Your task to perform on an android device: move an email to a new category in the gmail app Image 0: 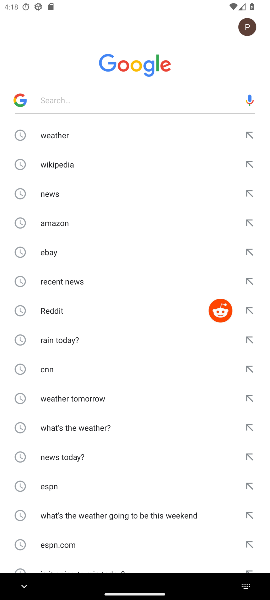
Step 0: press home button
Your task to perform on an android device: move an email to a new category in the gmail app Image 1: 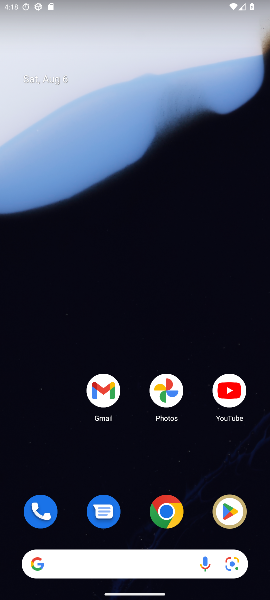
Step 1: click (98, 388)
Your task to perform on an android device: move an email to a new category in the gmail app Image 2: 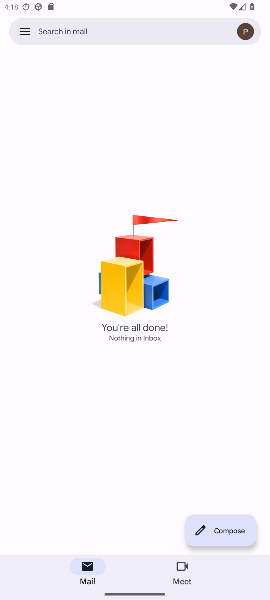
Step 2: task complete